Your task to perform on an android device: See recent photos Image 0: 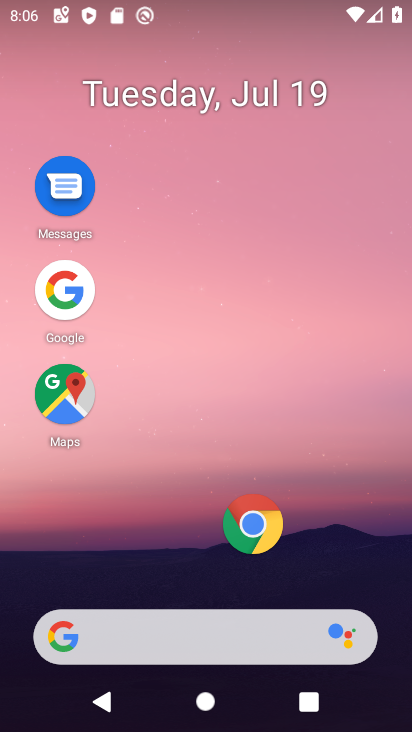
Step 0: drag from (194, 586) to (121, 107)
Your task to perform on an android device: See recent photos Image 1: 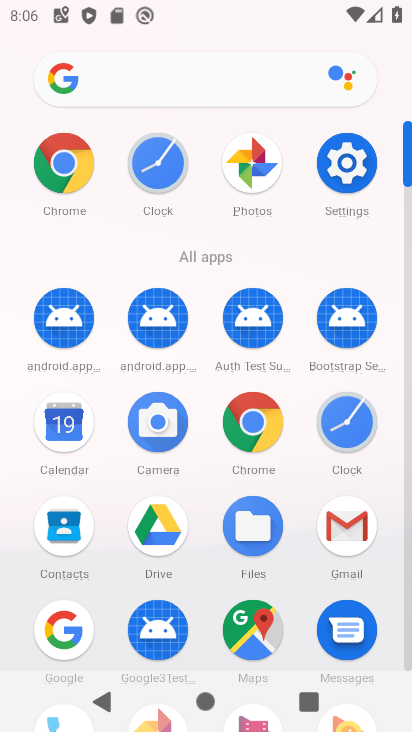
Step 1: click (259, 151)
Your task to perform on an android device: See recent photos Image 2: 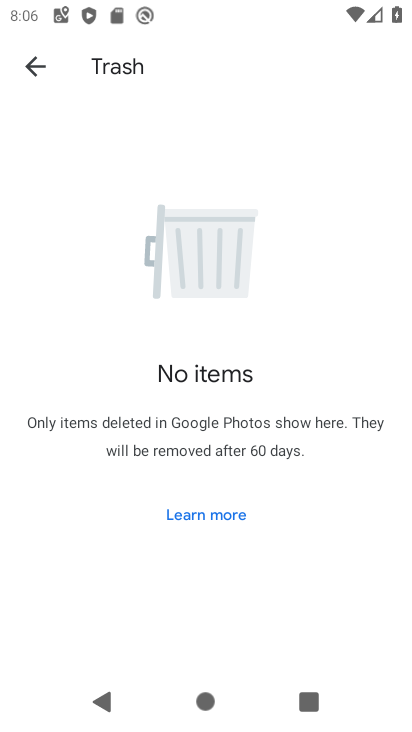
Step 2: click (26, 69)
Your task to perform on an android device: See recent photos Image 3: 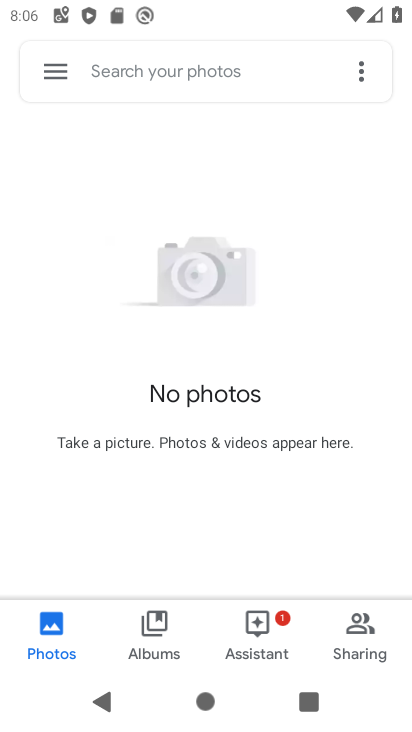
Step 3: task complete